Your task to perform on an android device: uninstall "DoorDash - Food Delivery" Image 0: 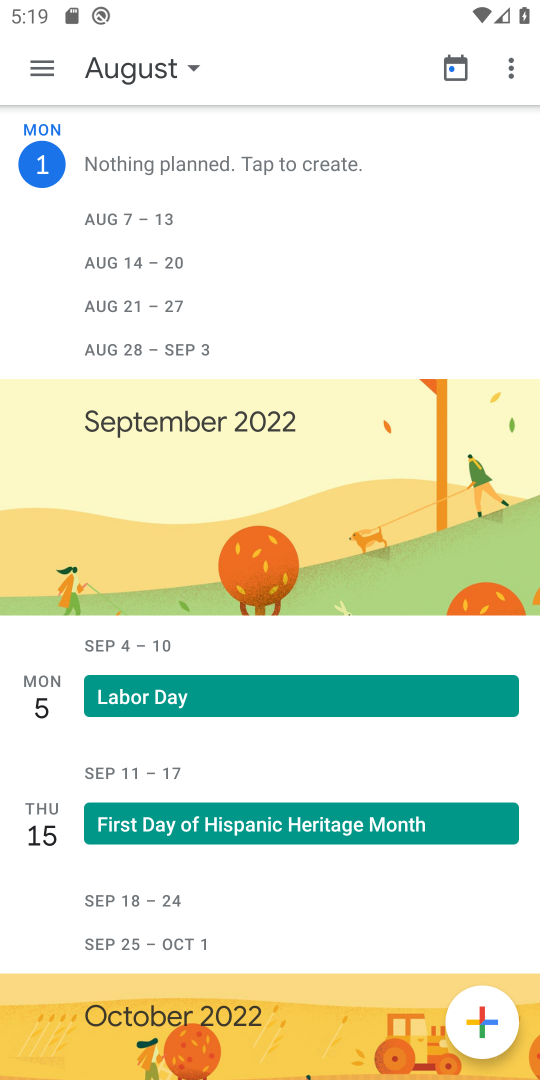
Step 0: press back button
Your task to perform on an android device: uninstall "DoorDash - Food Delivery" Image 1: 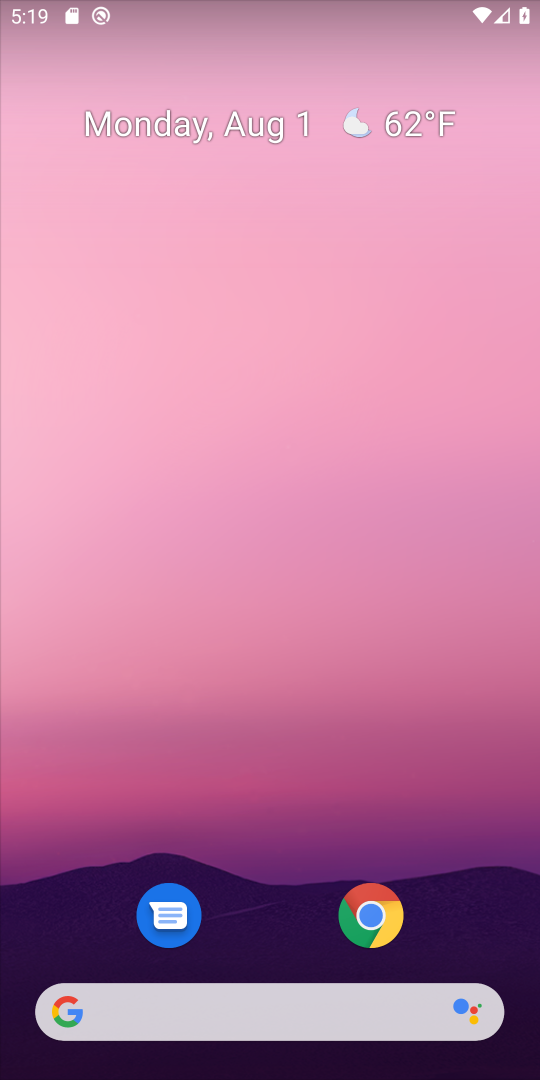
Step 1: drag from (141, 788) to (247, 16)
Your task to perform on an android device: uninstall "DoorDash - Food Delivery" Image 2: 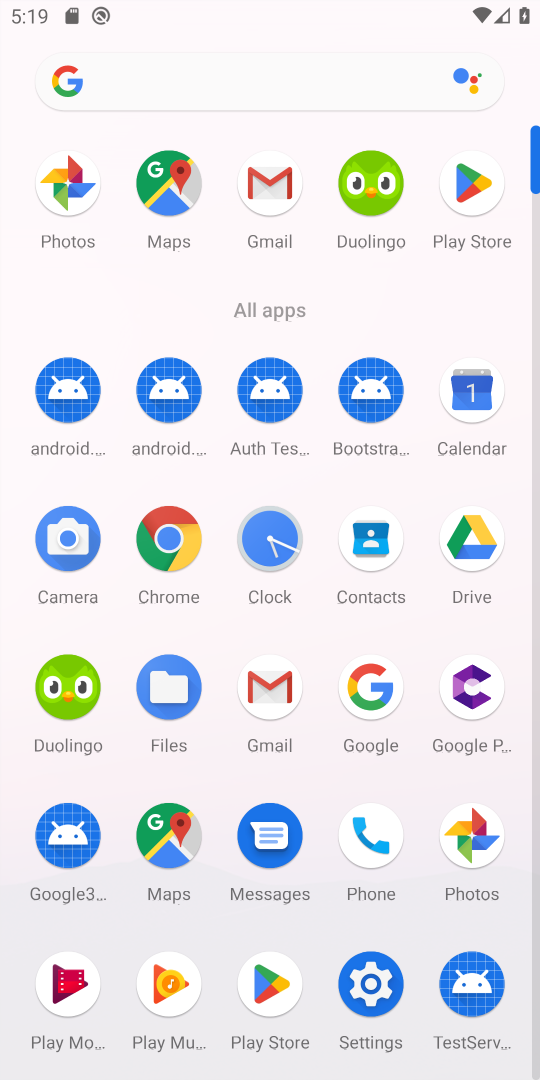
Step 2: click (472, 191)
Your task to perform on an android device: uninstall "DoorDash - Food Delivery" Image 3: 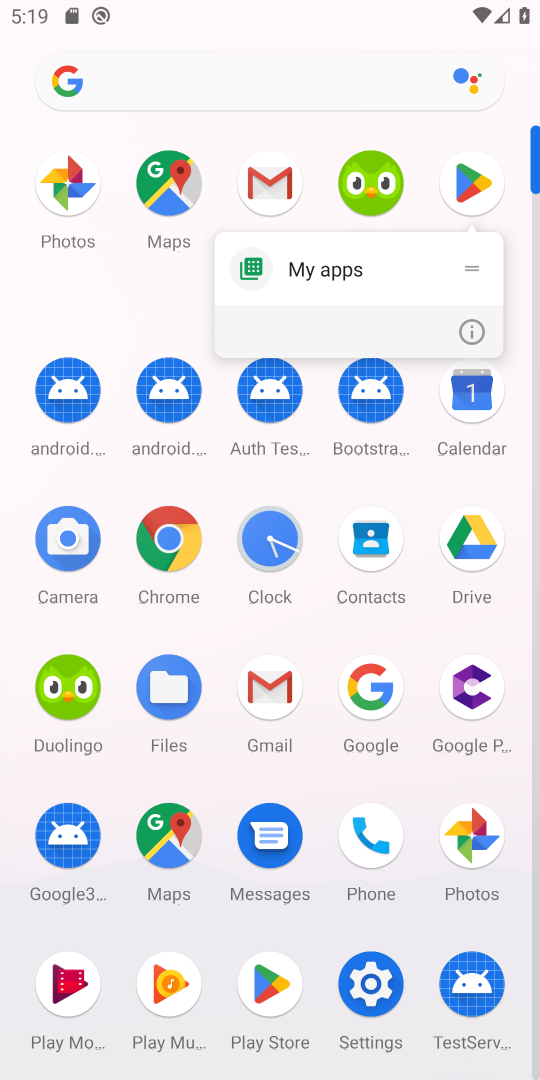
Step 3: click (476, 165)
Your task to perform on an android device: uninstall "DoorDash - Food Delivery" Image 4: 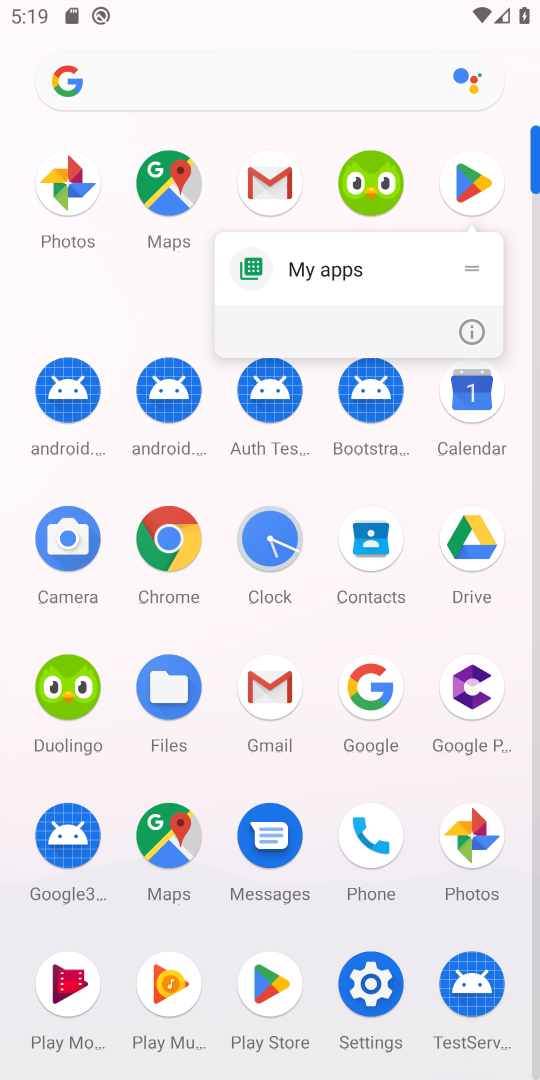
Step 4: click (489, 186)
Your task to perform on an android device: uninstall "DoorDash - Food Delivery" Image 5: 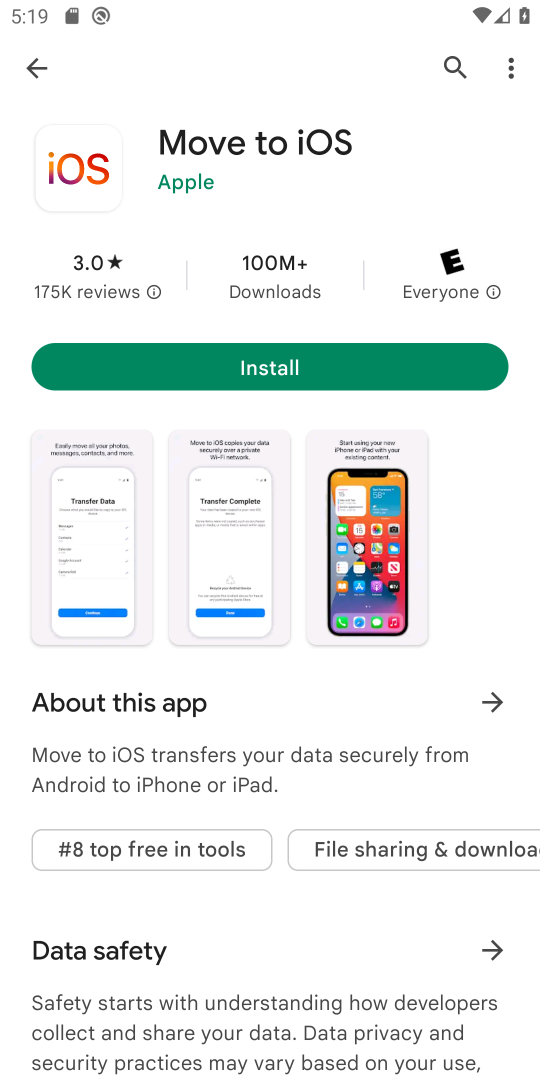
Step 5: click (461, 48)
Your task to perform on an android device: uninstall "DoorDash - Food Delivery" Image 6: 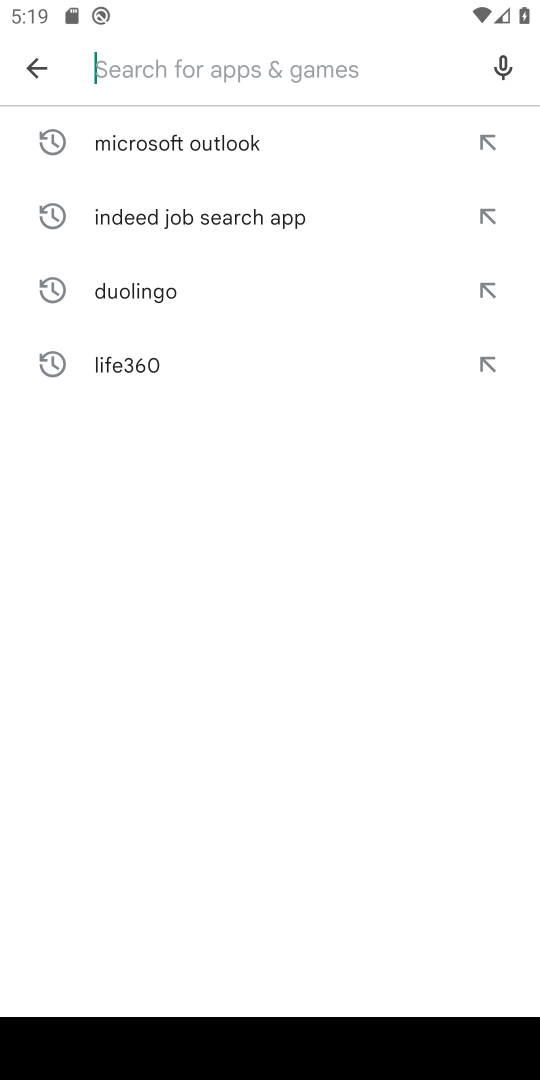
Step 6: click (247, 85)
Your task to perform on an android device: uninstall "DoorDash - Food Delivery" Image 7: 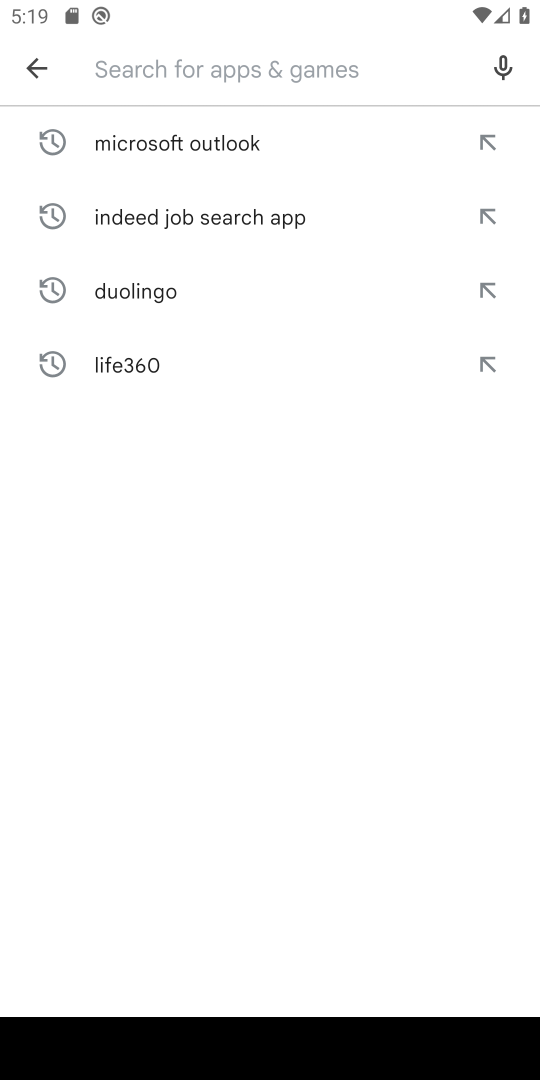
Step 7: type "door dash"
Your task to perform on an android device: uninstall "DoorDash - Food Delivery" Image 8: 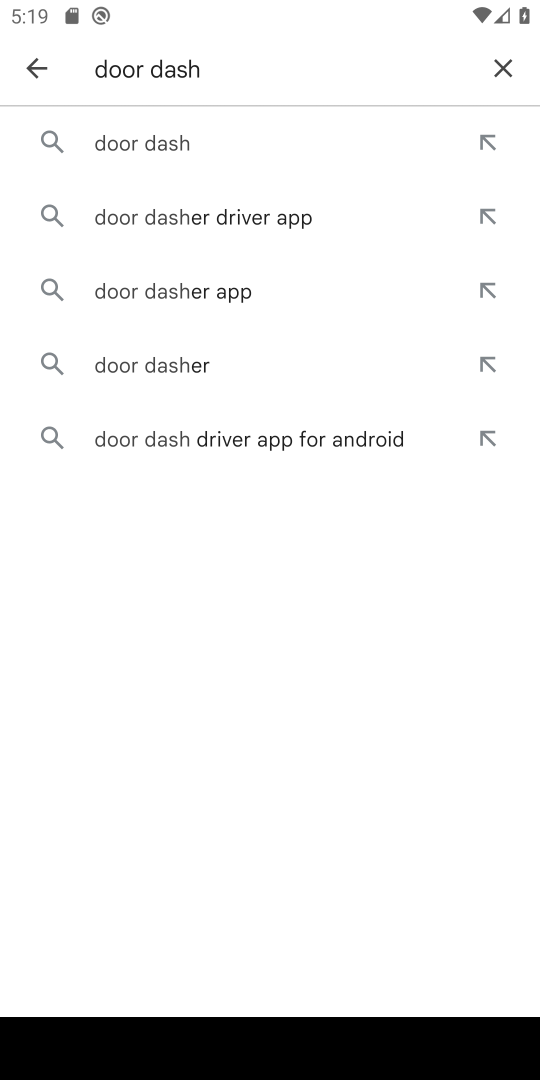
Step 8: click (173, 142)
Your task to perform on an android device: uninstall "DoorDash - Food Delivery" Image 9: 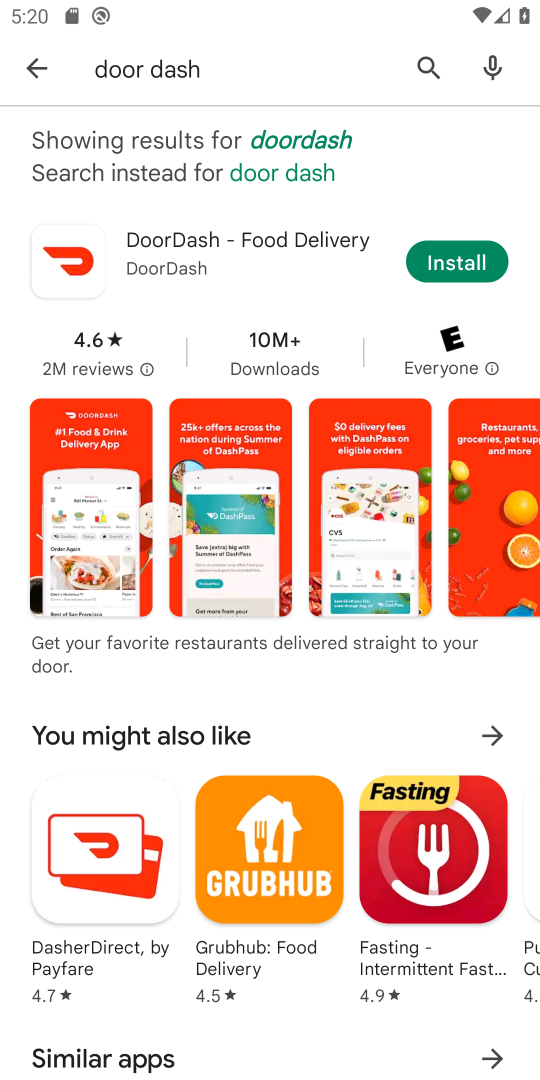
Step 9: task complete